Your task to perform on an android device: Go to display settings Image 0: 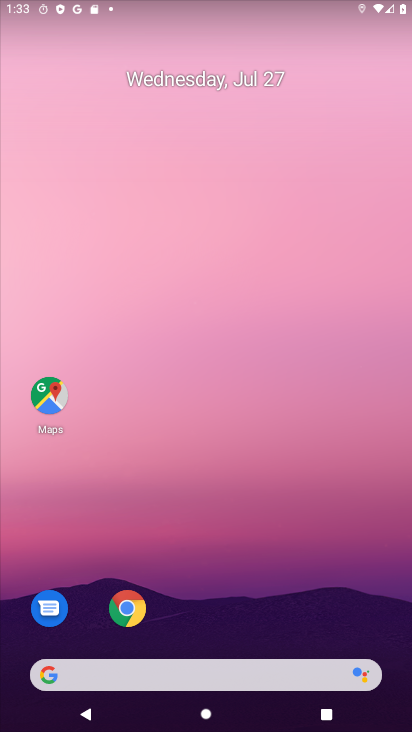
Step 0: drag from (193, 529) to (213, 25)
Your task to perform on an android device: Go to display settings Image 1: 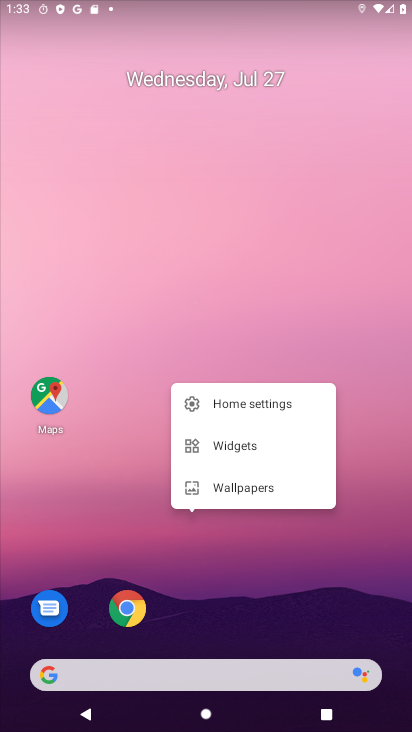
Step 1: click (215, 618)
Your task to perform on an android device: Go to display settings Image 2: 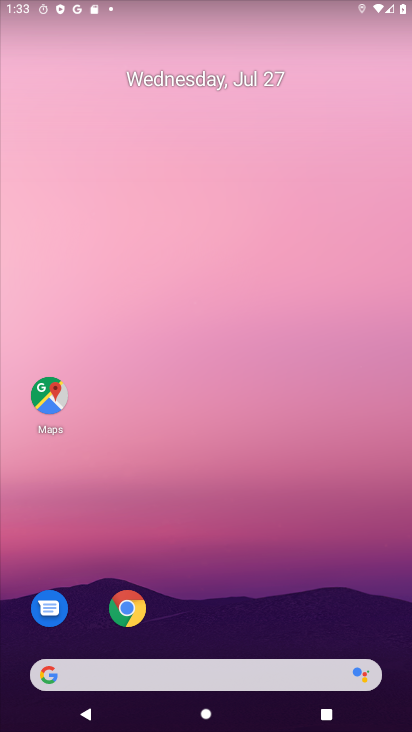
Step 2: drag from (175, 631) to (213, 128)
Your task to perform on an android device: Go to display settings Image 3: 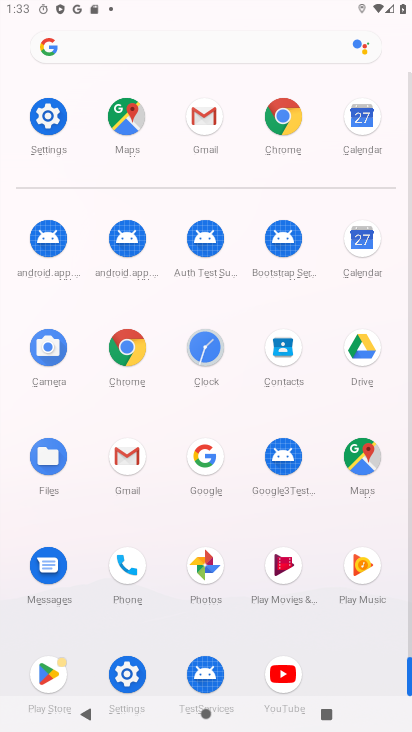
Step 3: click (45, 109)
Your task to perform on an android device: Go to display settings Image 4: 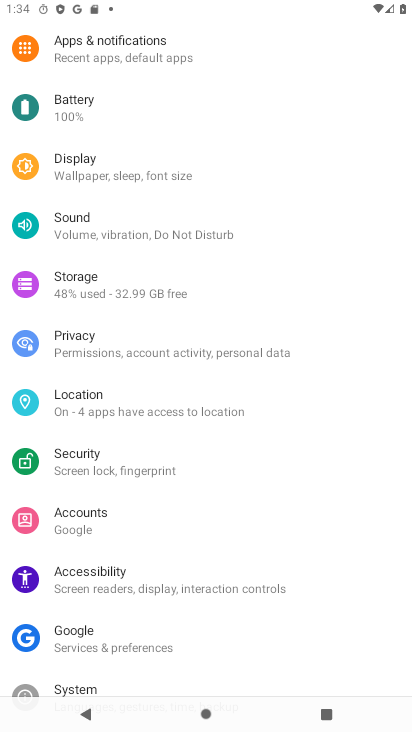
Step 4: click (83, 167)
Your task to perform on an android device: Go to display settings Image 5: 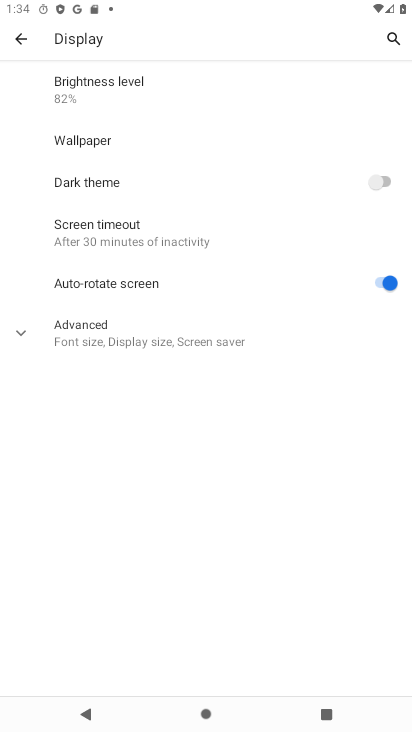
Step 5: task complete